Your task to perform on an android device: View the shopping cart on newegg. Search for "razer blade" on newegg, select the first entry, and add it to the cart. Image 0: 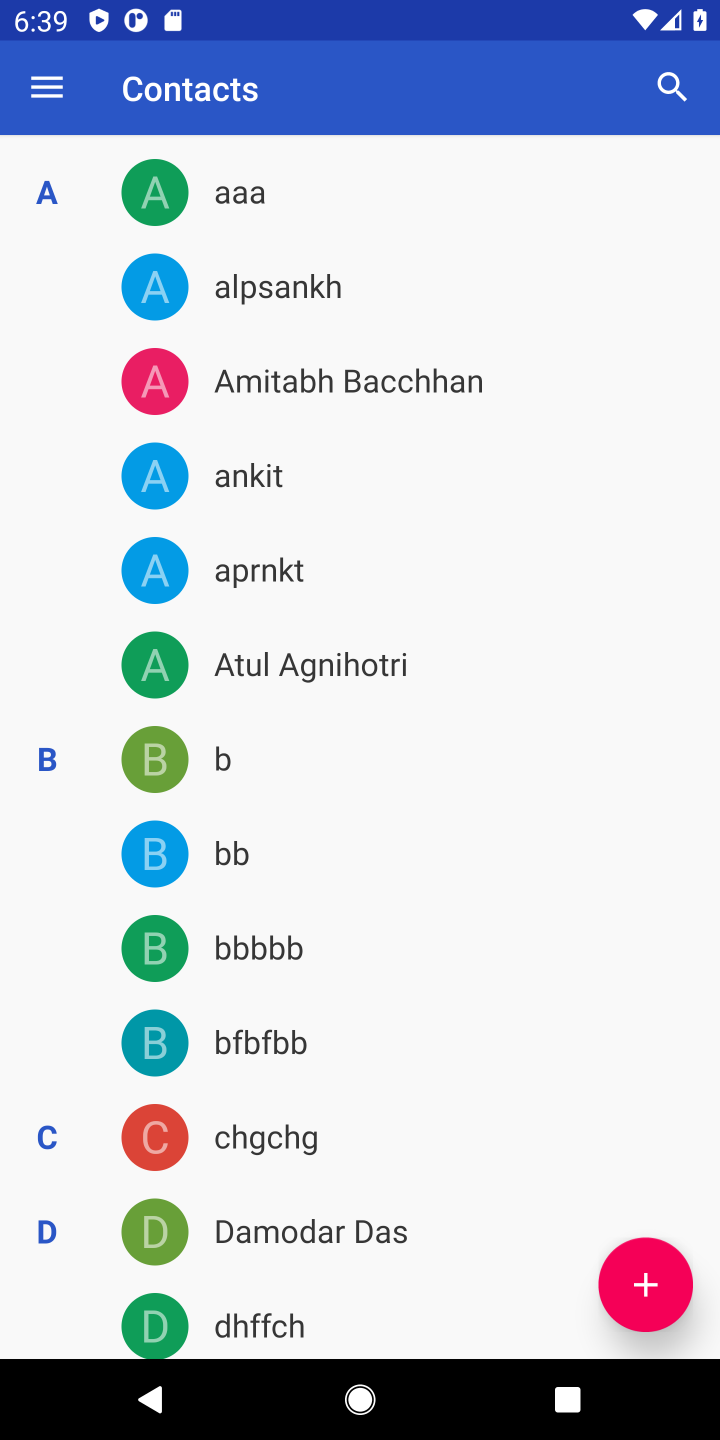
Step 0: press home button
Your task to perform on an android device: View the shopping cart on newegg. Search for "razer blade" on newegg, select the first entry, and add it to the cart. Image 1: 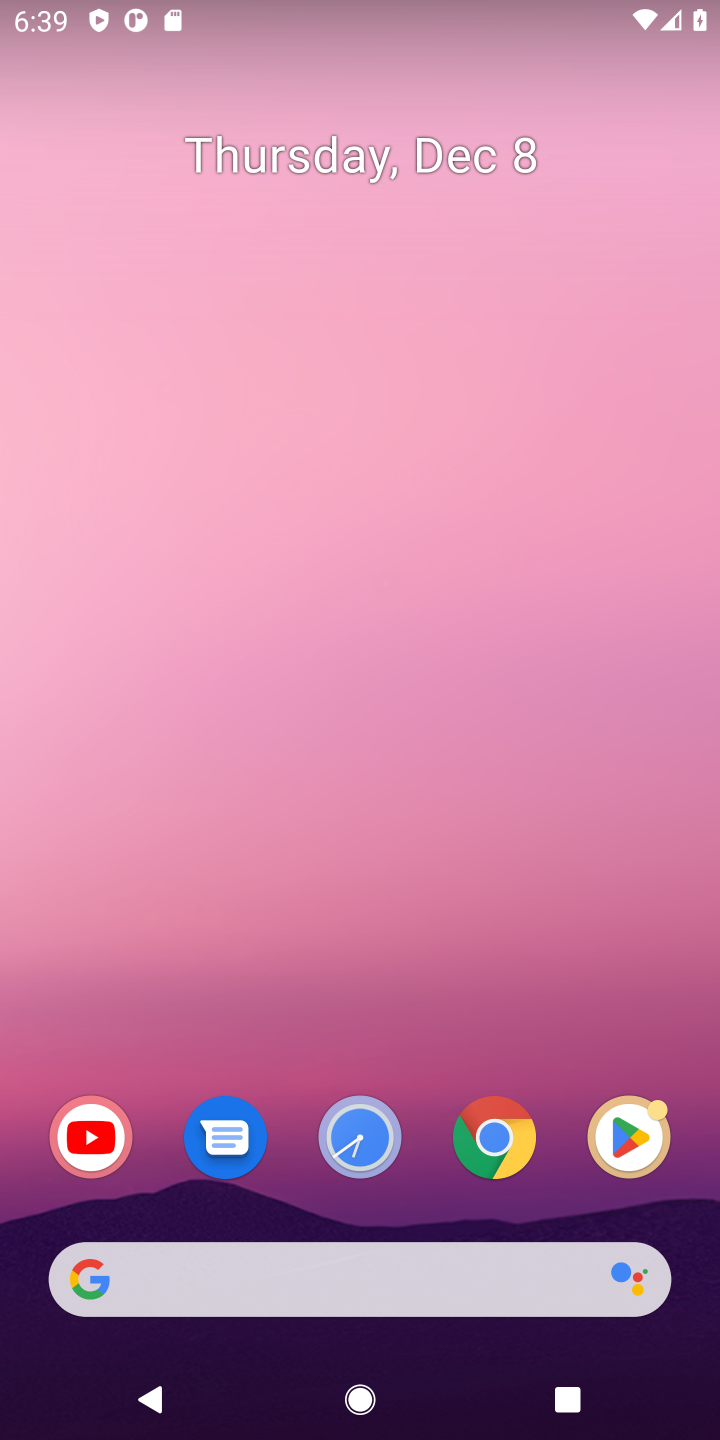
Step 1: click (491, 1140)
Your task to perform on an android device: View the shopping cart on newegg. Search for "razer blade" on newegg, select the first entry, and add it to the cart. Image 2: 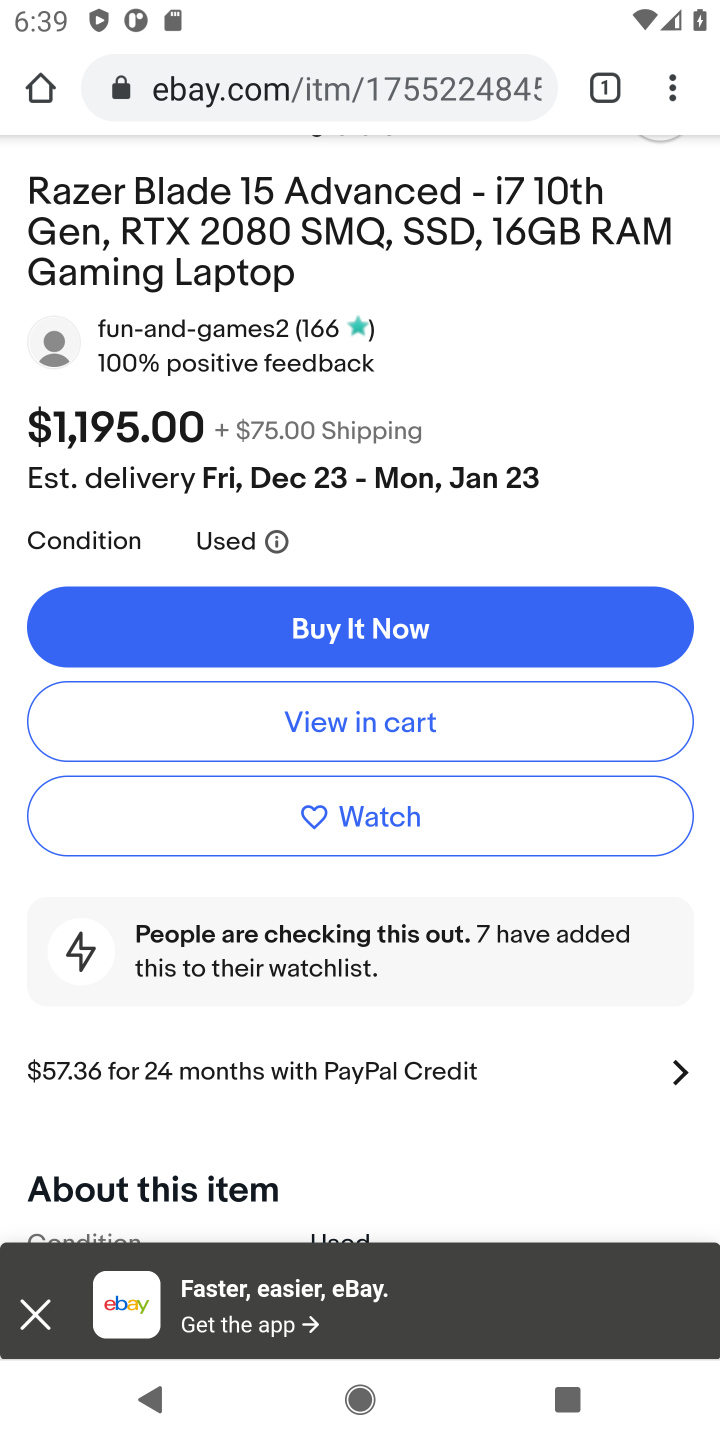
Step 2: click (603, 96)
Your task to perform on an android device: View the shopping cart on newegg. Search for "razer blade" on newegg, select the first entry, and add it to the cart. Image 3: 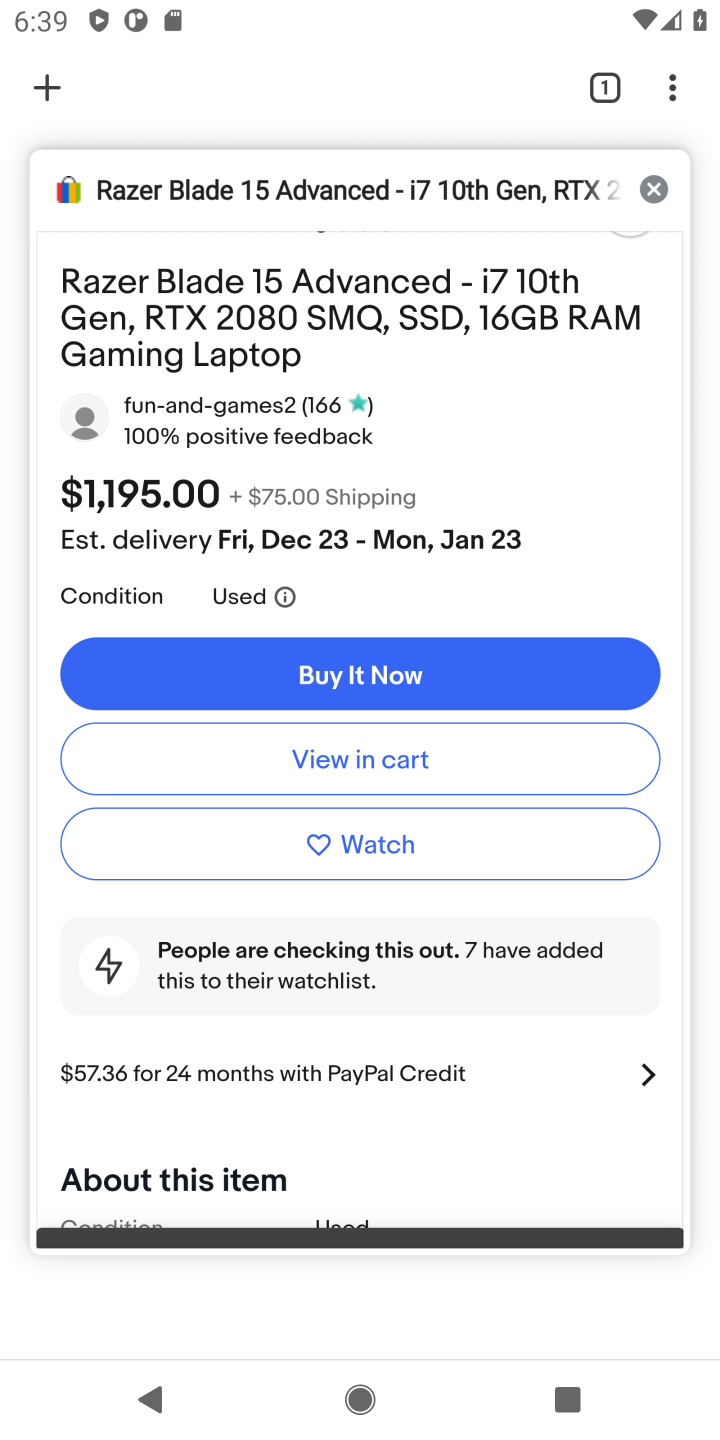
Step 3: click (43, 97)
Your task to perform on an android device: View the shopping cart on newegg. Search for "razer blade" on newegg, select the first entry, and add it to the cart. Image 4: 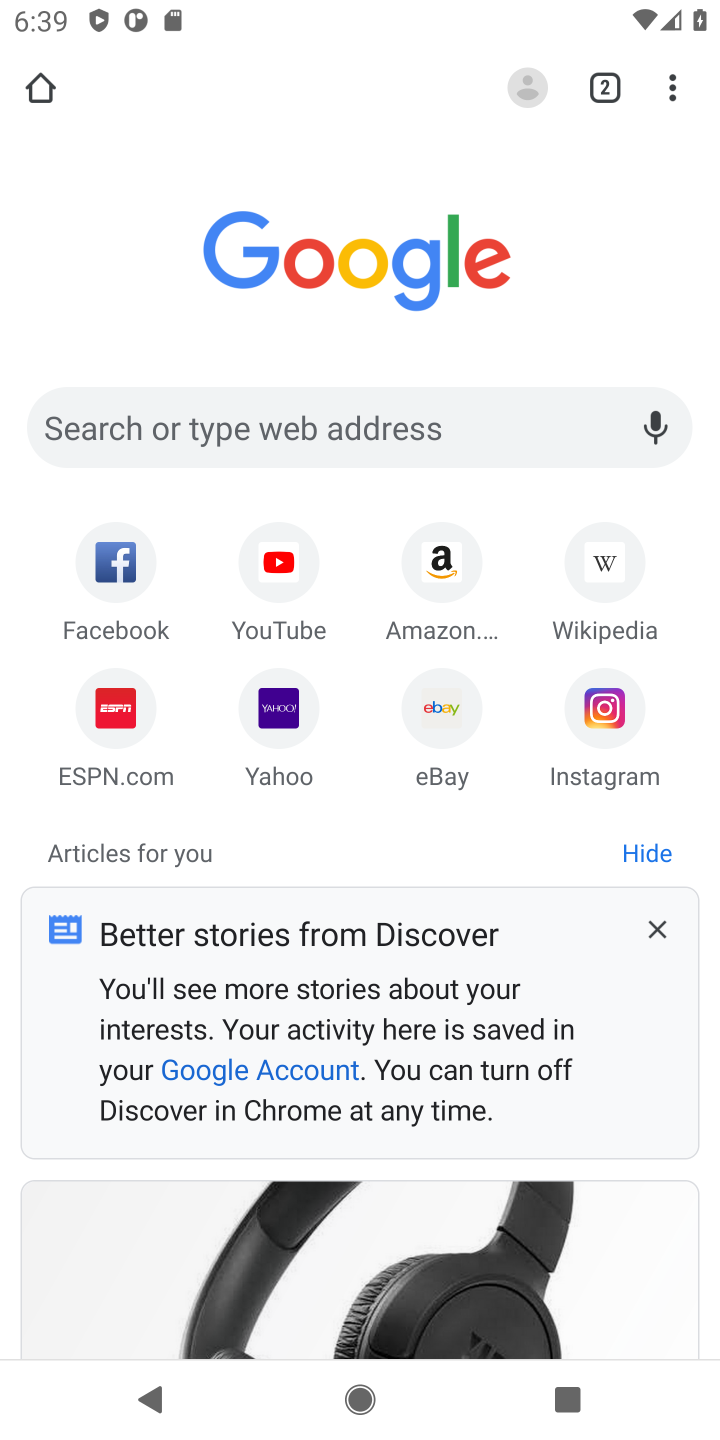
Step 4: click (166, 421)
Your task to perform on an android device: View the shopping cart on newegg. Search for "razer blade" on newegg, select the first entry, and add it to the cart. Image 5: 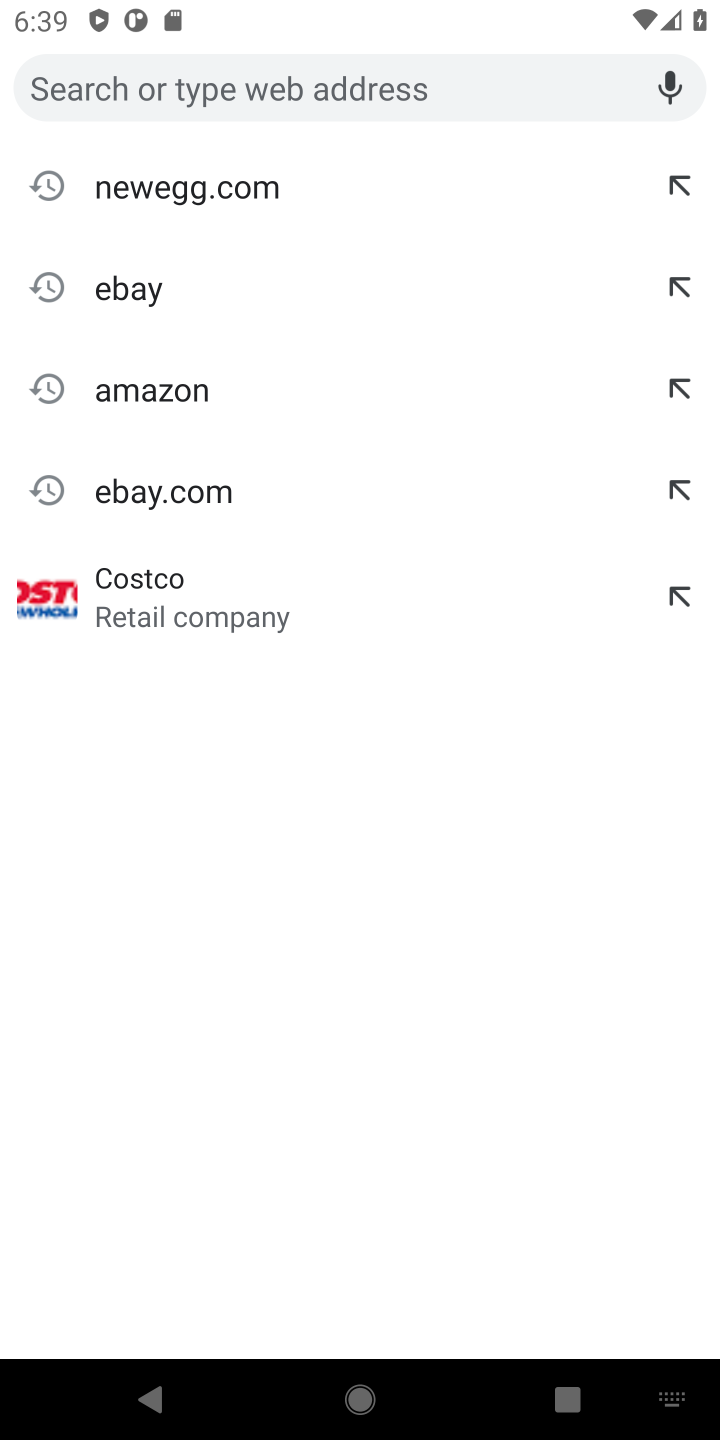
Step 5: click (156, 175)
Your task to perform on an android device: View the shopping cart on newegg. Search for "razer blade" on newegg, select the first entry, and add it to the cart. Image 6: 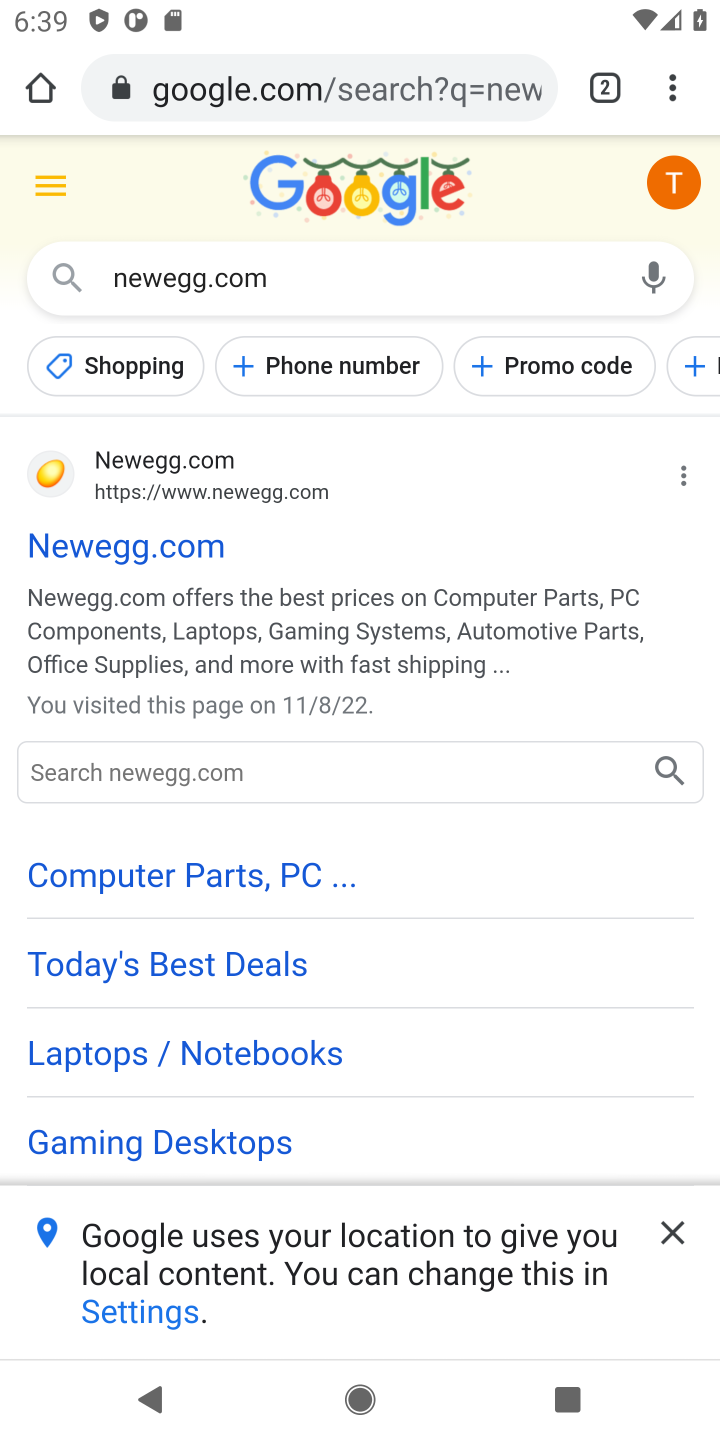
Step 6: click (127, 540)
Your task to perform on an android device: View the shopping cart on newegg. Search for "razer blade" on newegg, select the first entry, and add it to the cart. Image 7: 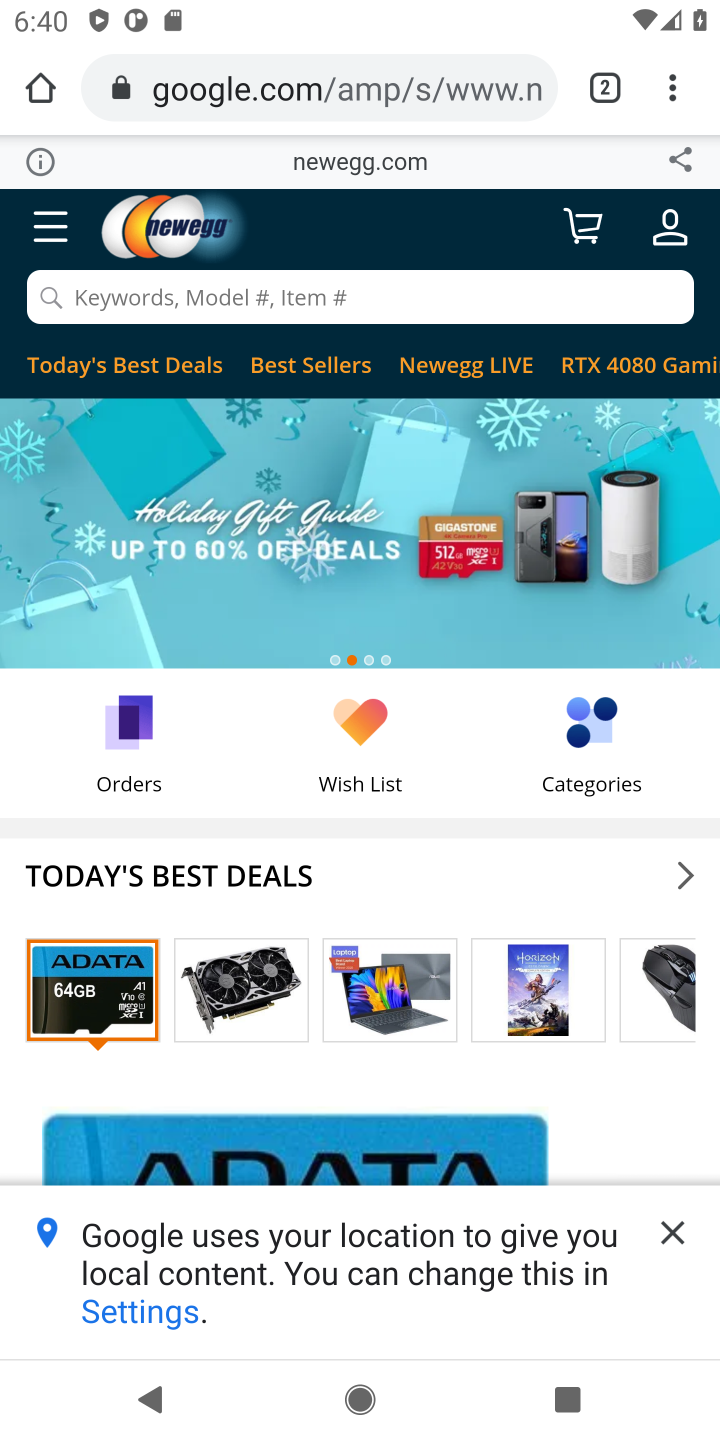
Step 7: click (592, 226)
Your task to perform on an android device: View the shopping cart on newegg. Search for "razer blade" on newegg, select the first entry, and add it to the cart. Image 8: 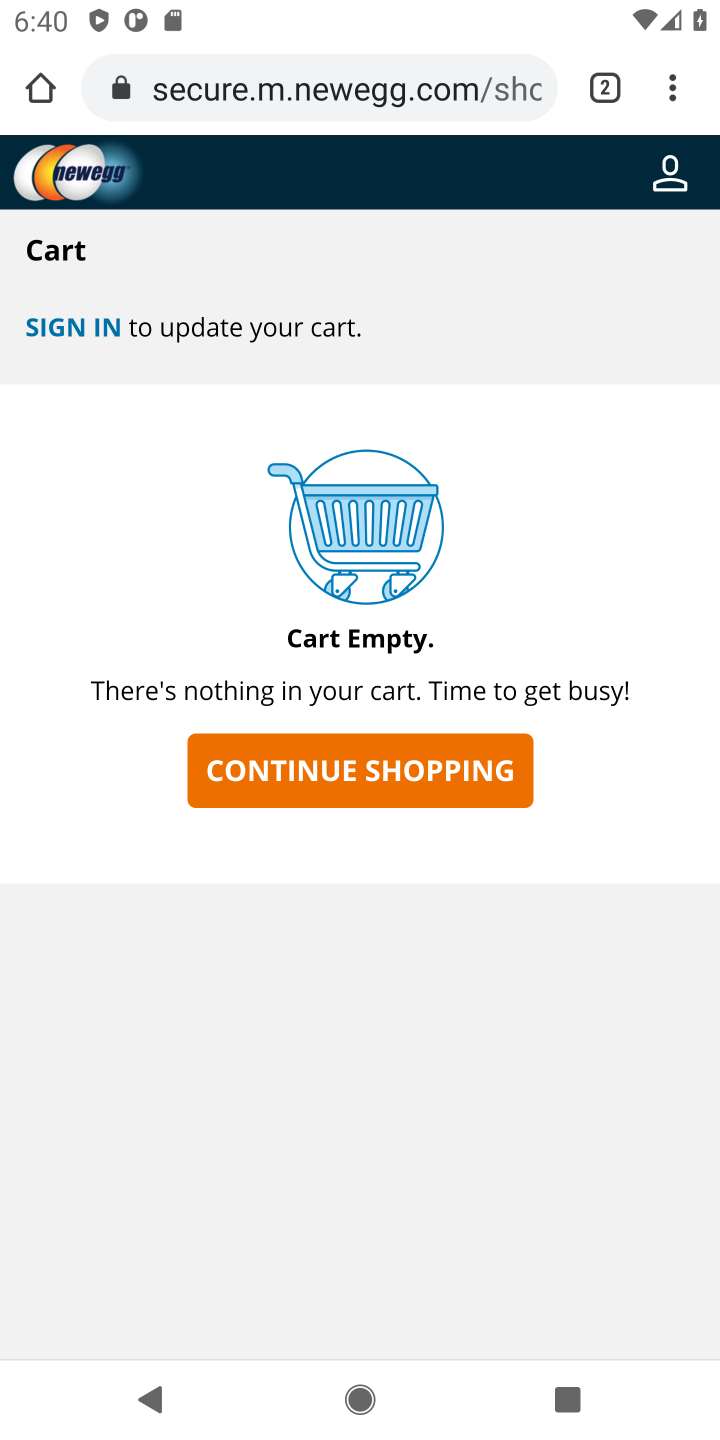
Step 8: press back button
Your task to perform on an android device: View the shopping cart on newegg. Search for "razer blade" on newegg, select the first entry, and add it to the cart. Image 9: 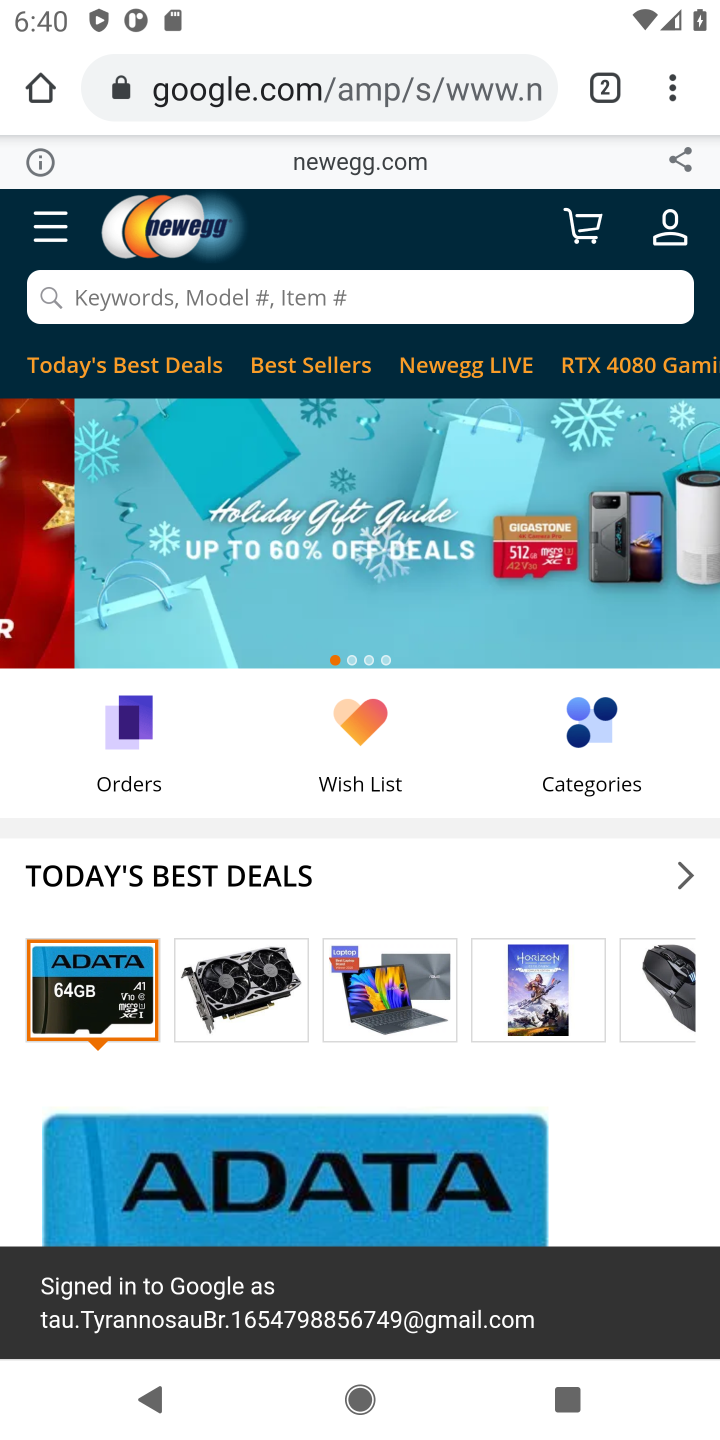
Step 9: click (348, 315)
Your task to perform on an android device: View the shopping cart on newegg. Search for "razer blade" on newegg, select the first entry, and add it to the cart. Image 10: 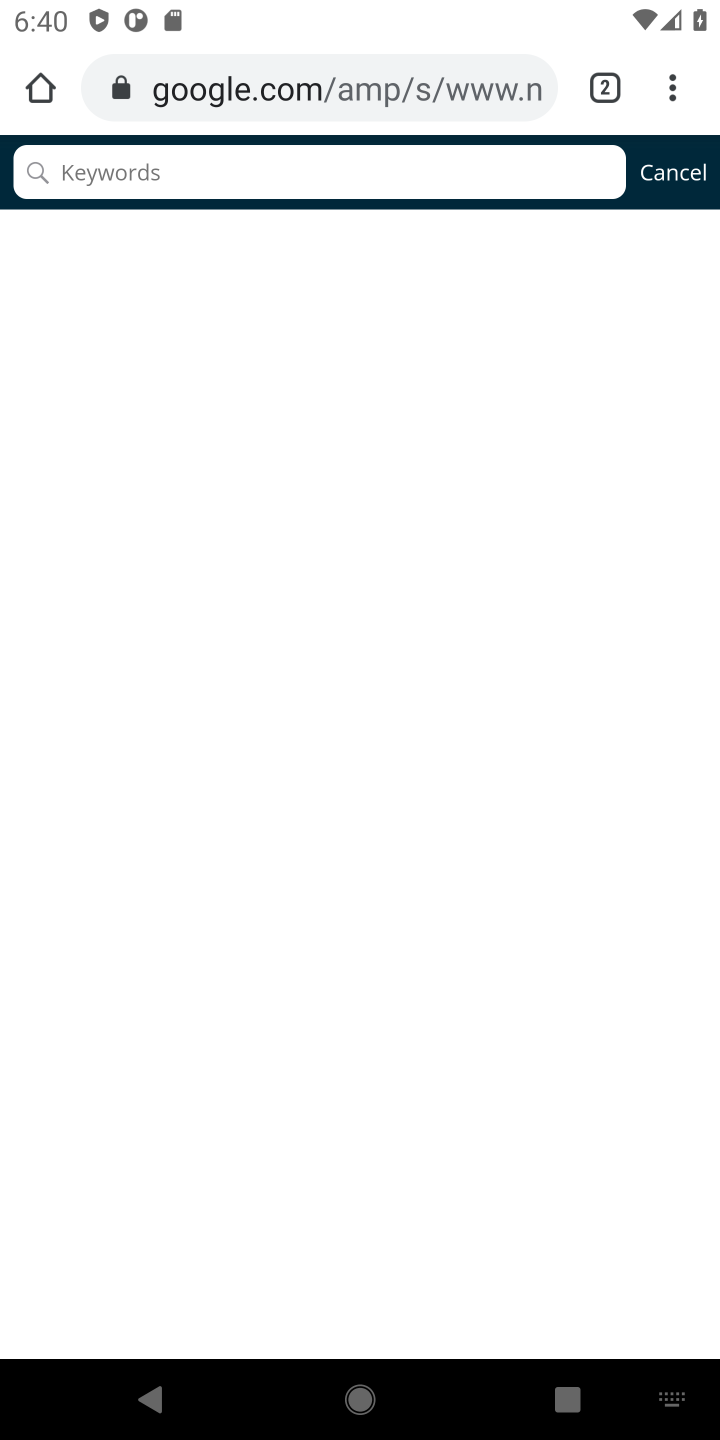
Step 10: type "razer blade"
Your task to perform on an android device: View the shopping cart on newegg. Search for "razer blade" on newegg, select the first entry, and add it to the cart. Image 11: 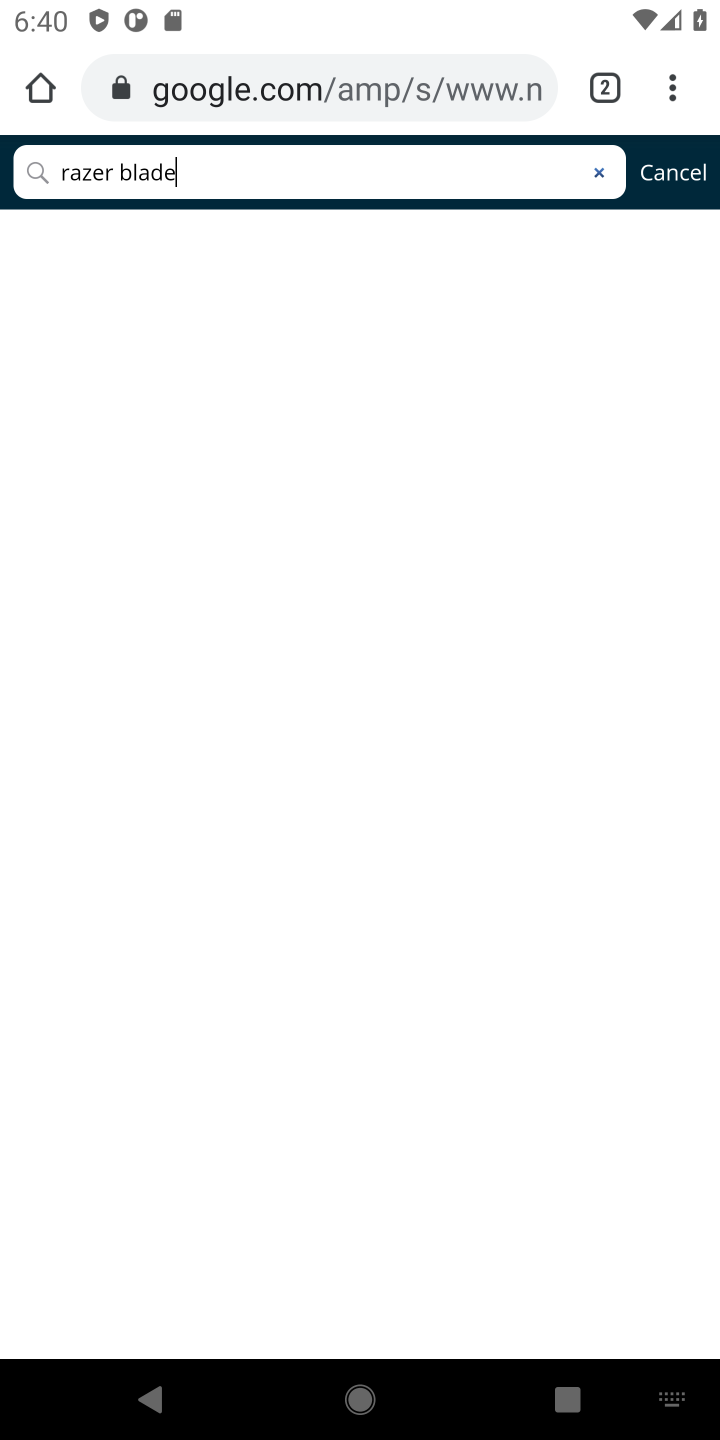
Step 11: press enter
Your task to perform on an android device: View the shopping cart on newegg. Search for "razer blade" on newegg, select the first entry, and add it to the cart. Image 12: 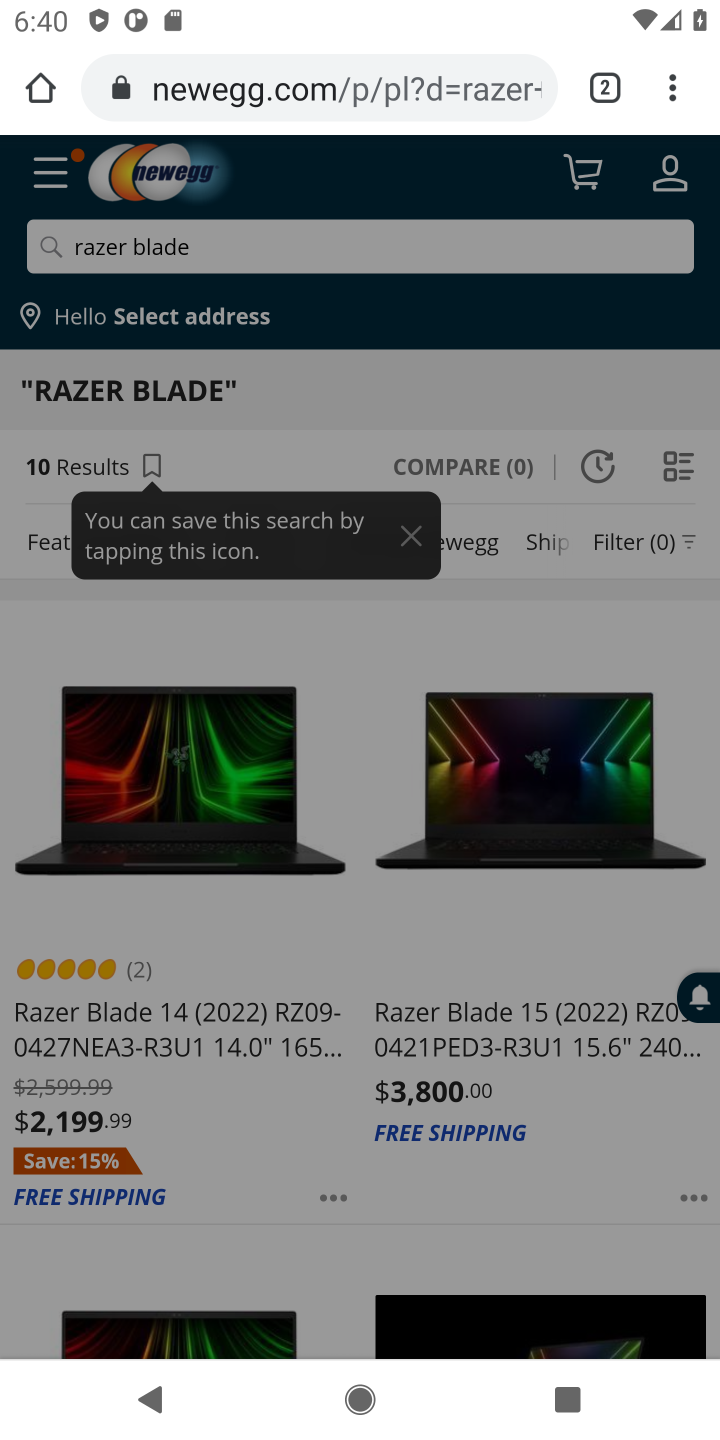
Step 12: click (178, 1014)
Your task to perform on an android device: View the shopping cart on newegg. Search for "razer blade" on newegg, select the first entry, and add it to the cart. Image 13: 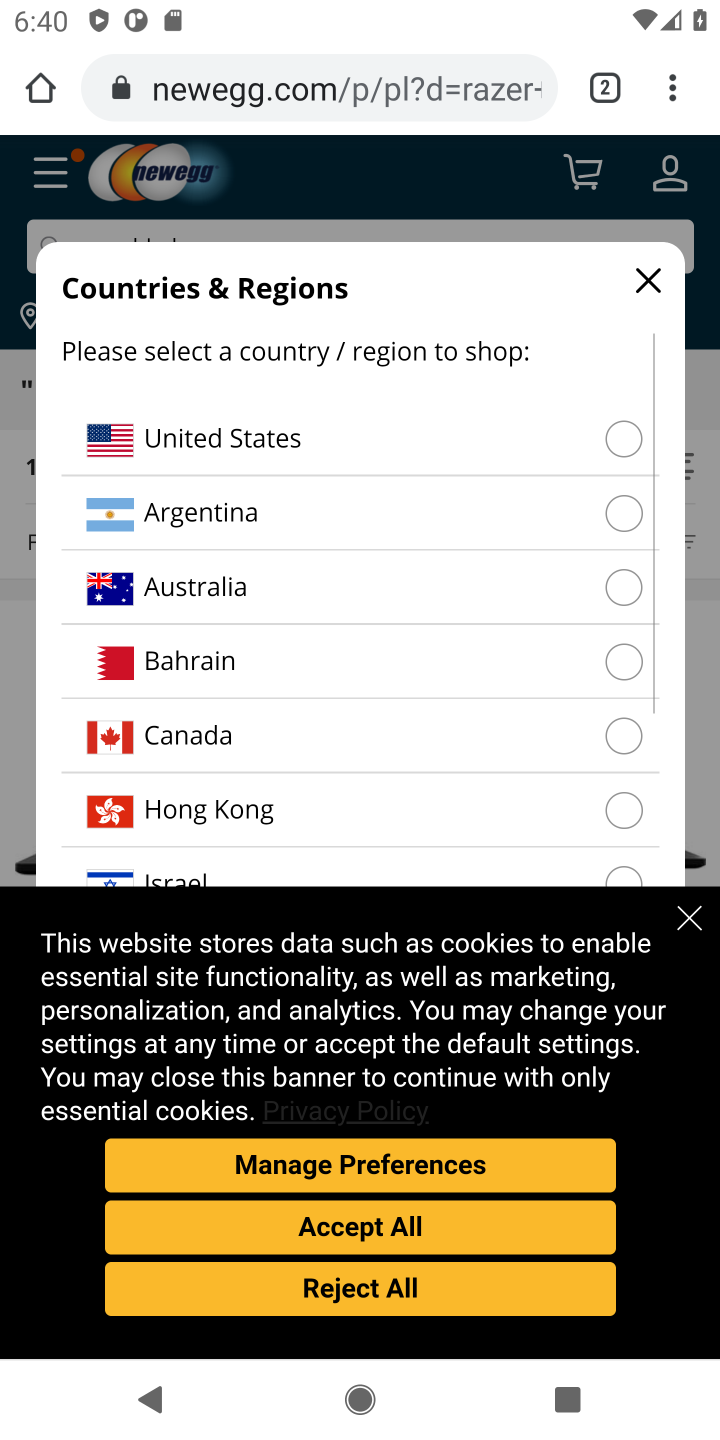
Step 13: click (419, 1290)
Your task to perform on an android device: View the shopping cart on newegg. Search for "razer blade" on newegg, select the first entry, and add it to the cart. Image 14: 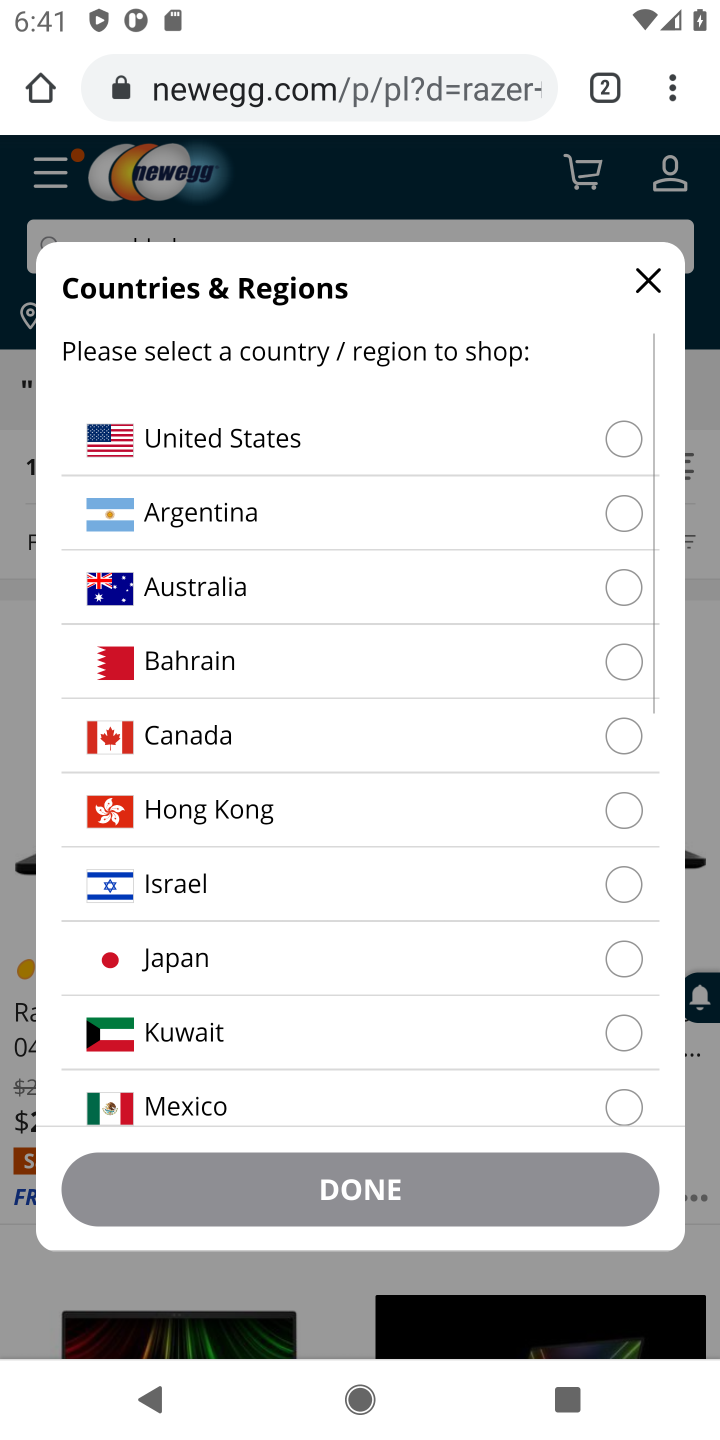
Step 14: click (627, 424)
Your task to perform on an android device: View the shopping cart on newegg. Search for "razer blade" on newegg, select the first entry, and add it to the cart. Image 15: 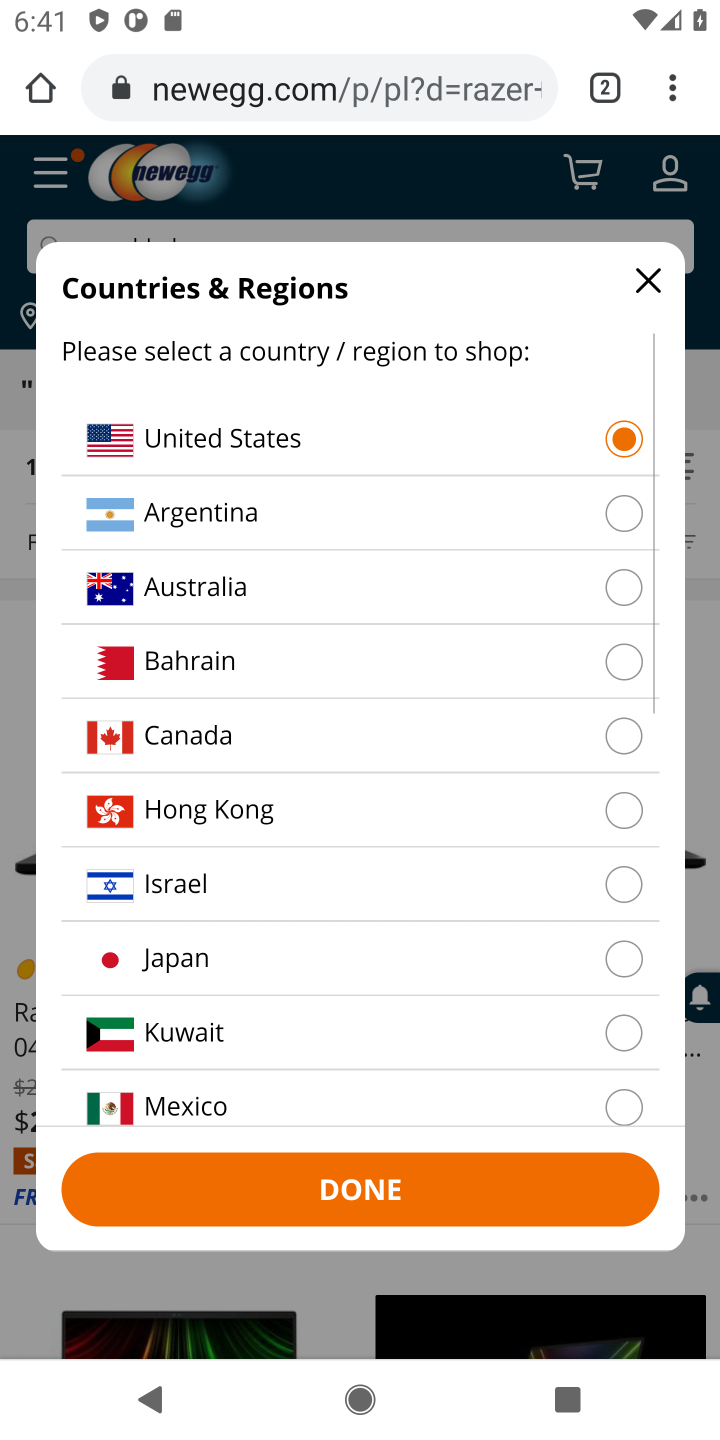
Step 15: click (406, 1188)
Your task to perform on an android device: View the shopping cart on newegg. Search for "razer blade" on newegg, select the first entry, and add it to the cart. Image 16: 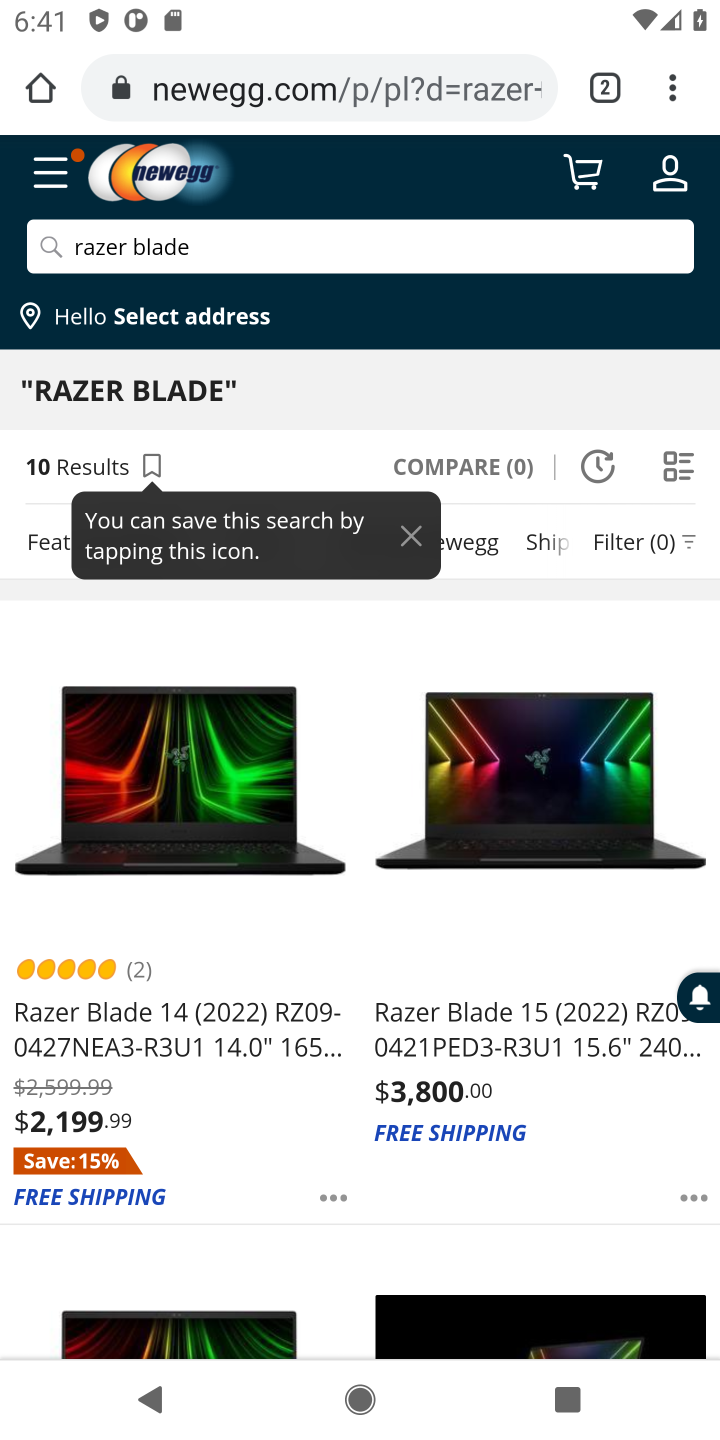
Step 16: click (170, 1009)
Your task to perform on an android device: View the shopping cart on newegg. Search for "razer blade" on newegg, select the first entry, and add it to the cart. Image 17: 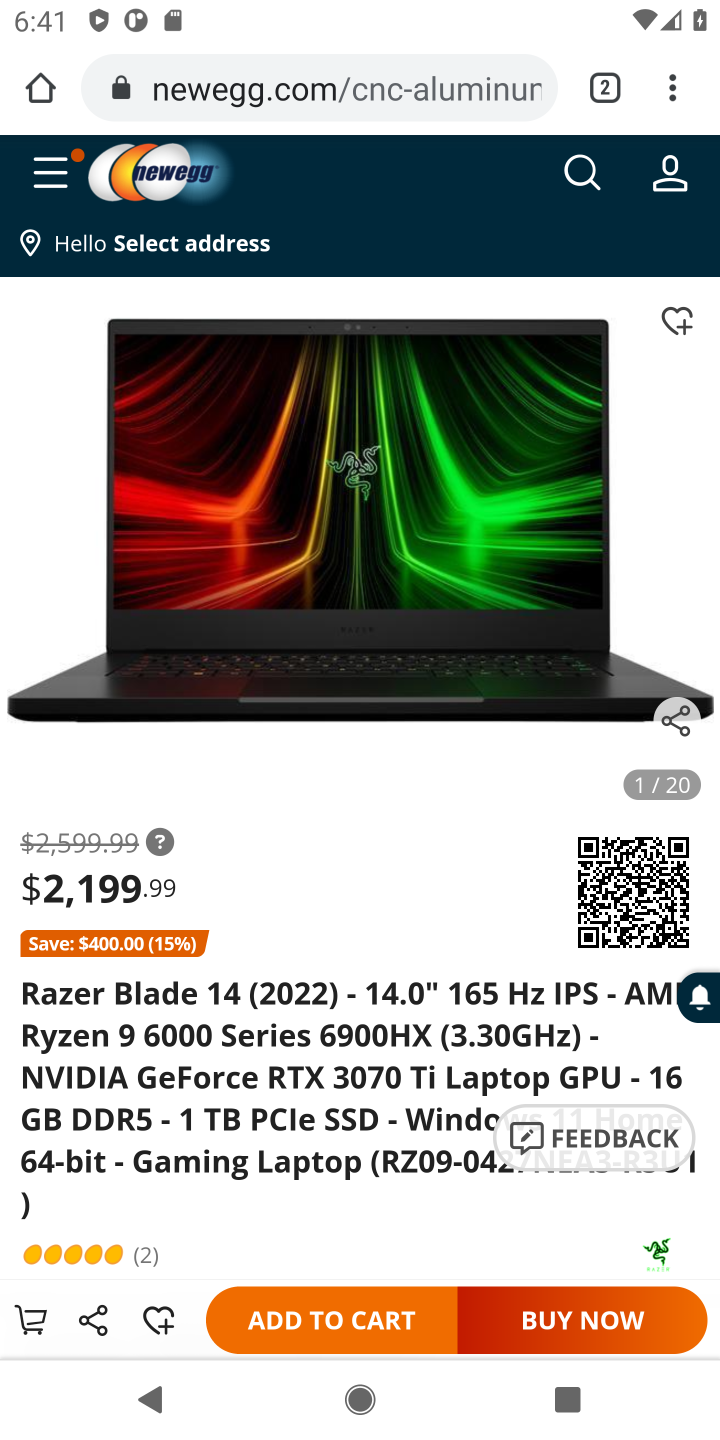
Step 17: click (331, 1315)
Your task to perform on an android device: View the shopping cart on newegg. Search for "razer blade" on newegg, select the first entry, and add it to the cart. Image 18: 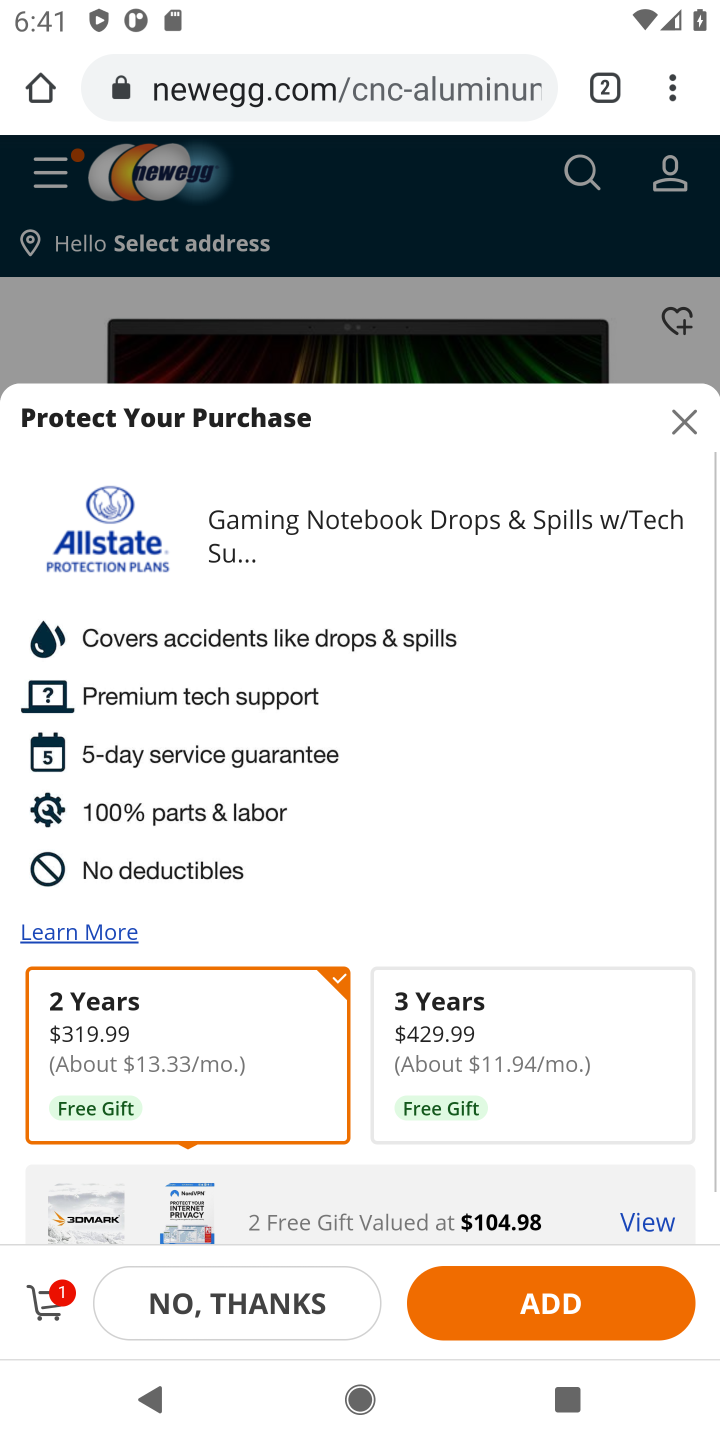
Step 18: click (681, 412)
Your task to perform on an android device: View the shopping cart on newegg. Search for "razer blade" on newegg, select the first entry, and add it to the cart. Image 19: 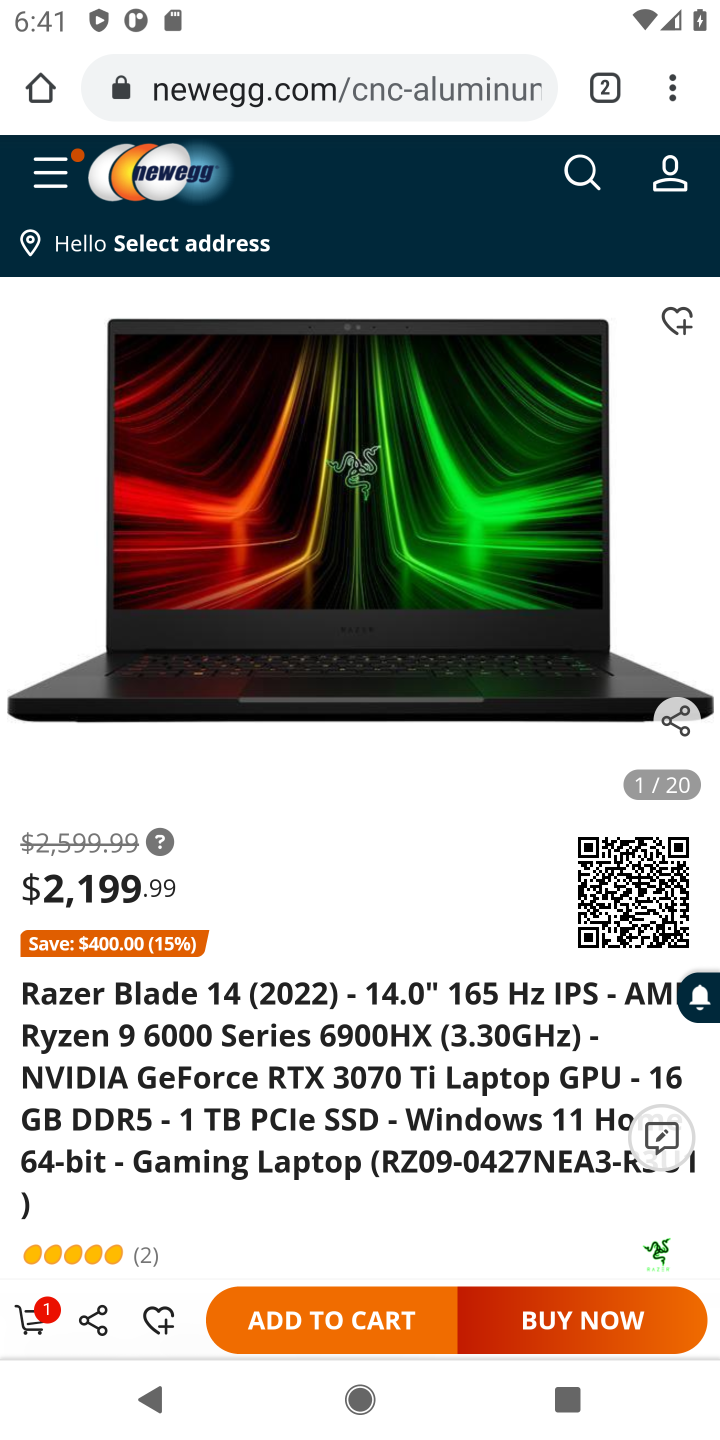
Step 19: task complete